Your task to perform on an android device: turn pop-ups on in chrome Image 0: 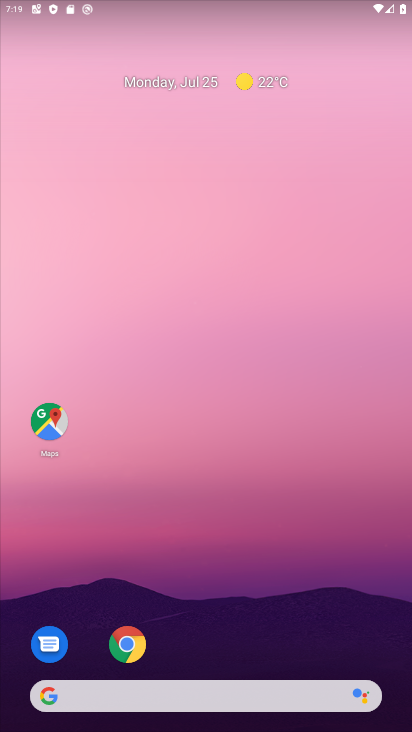
Step 0: click (124, 638)
Your task to perform on an android device: turn pop-ups on in chrome Image 1: 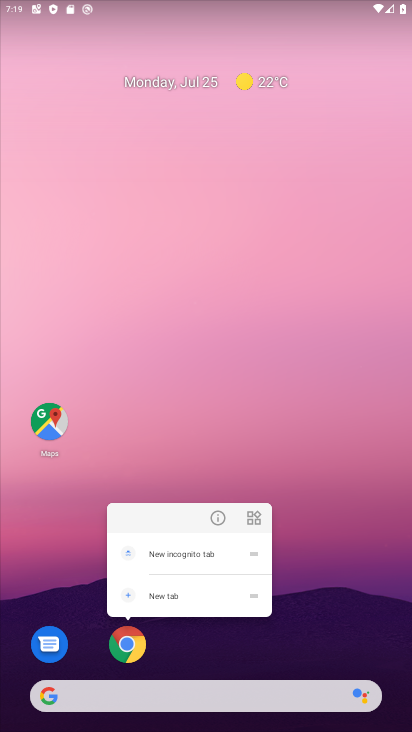
Step 1: click (124, 638)
Your task to perform on an android device: turn pop-ups on in chrome Image 2: 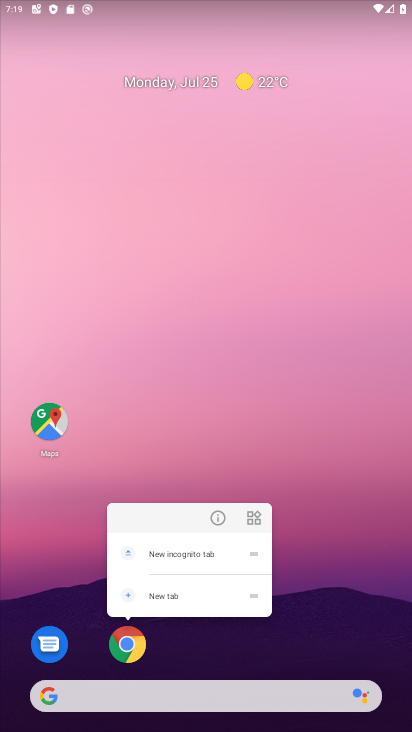
Step 2: click (125, 639)
Your task to perform on an android device: turn pop-ups on in chrome Image 3: 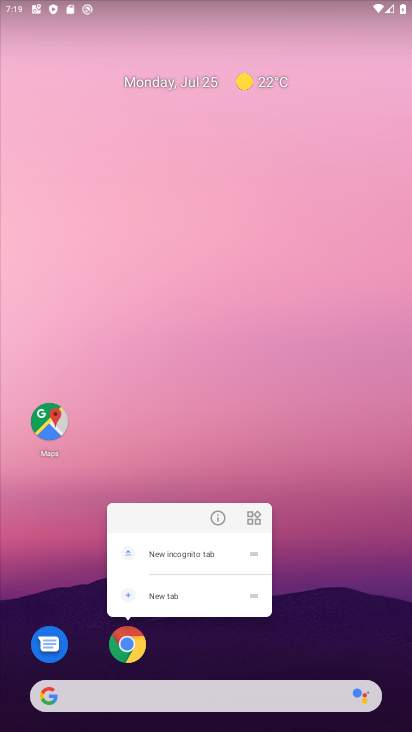
Step 3: click (124, 637)
Your task to perform on an android device: turn pop-ups on in chrome Image 4: 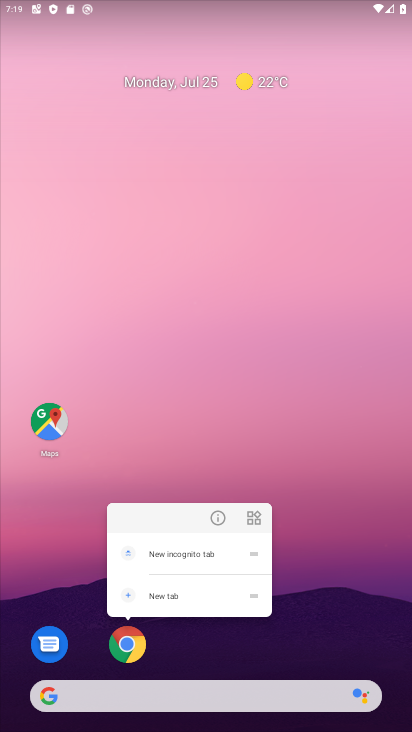
Step 4: click (262, 654)
Your task to perform on an android device: turn pop-ups on in chrome Image 5: 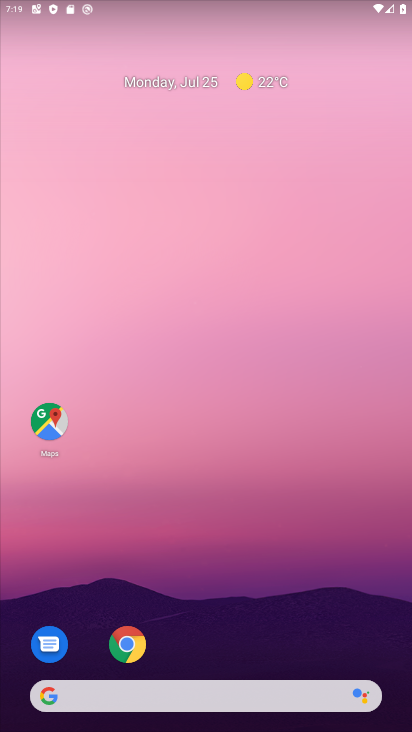
Step 5: drag from (298, 665) to (302, 123)
Your task to perform on an android device: turn pop-ups on in chrome Image 6: 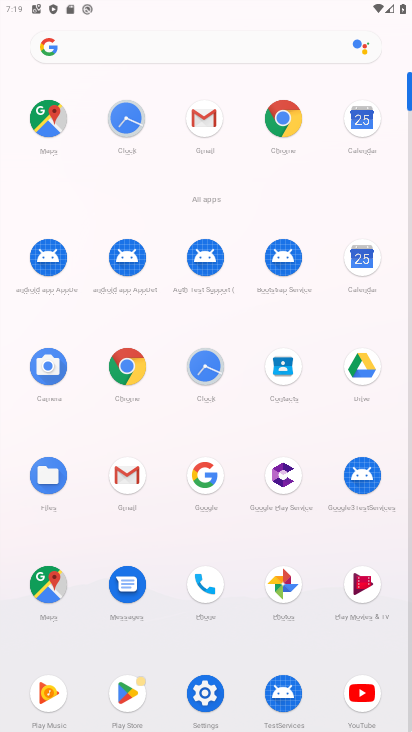
Step 6: click (281, 112)
Your task to perform on an android device: turn pop-ups on in chrome Image 7: 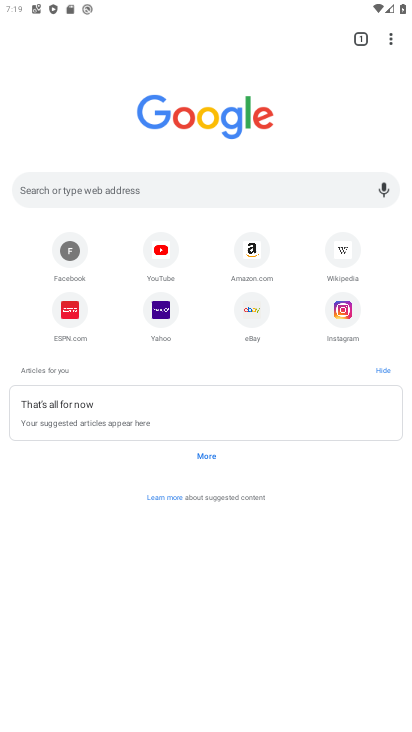
Step 7: click (387, 34)
Your task to perform on an android device: turn pop-ups on in chrome Image 8: 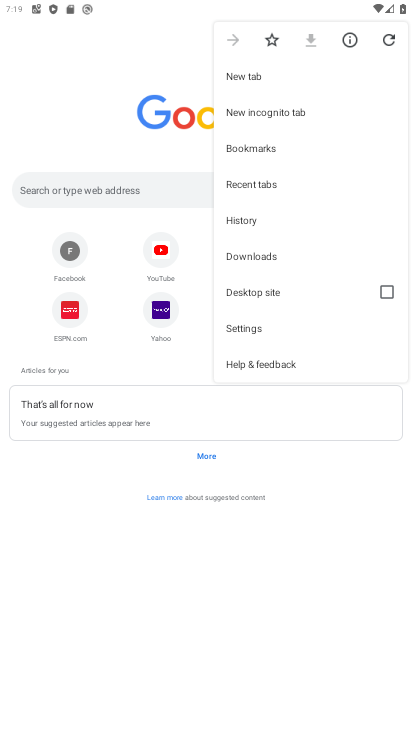
Step 8: click (262, 323)
Your task to perform on an android device: turn pop-ups on in chrome Image 9: 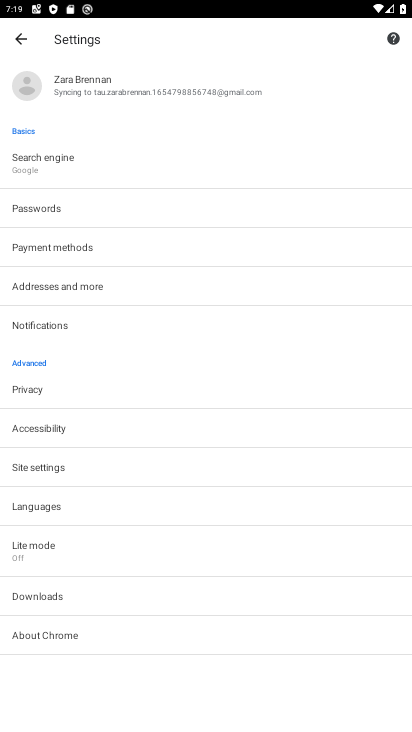
Step 9: click (75, 465)
Your task to perform on an android device: turn pop-ups on in chrome Image 10: 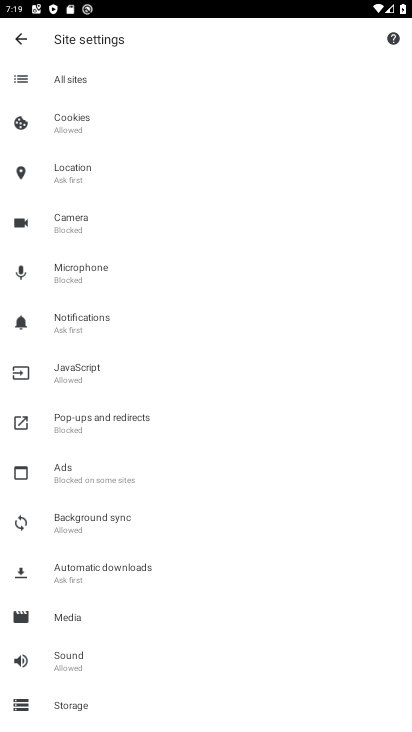
Step 10: click (175, 416)
Your task to perform on an android device: turn pop-ups on in chrome Image 11: 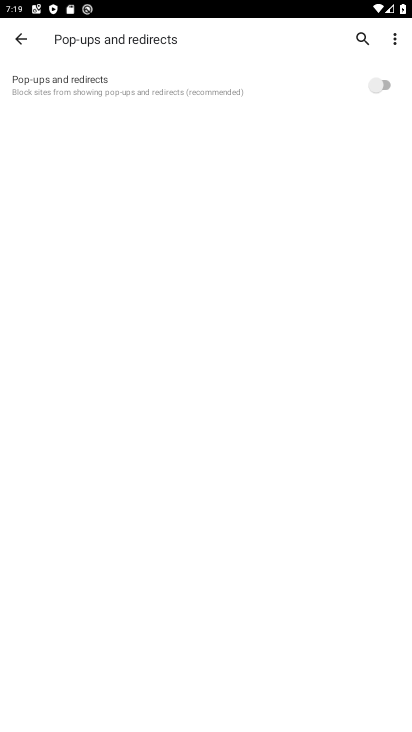
Step 11: click (386, 83)
Your task to perform on an android device: turn pop-ups on in chrome Image 12: 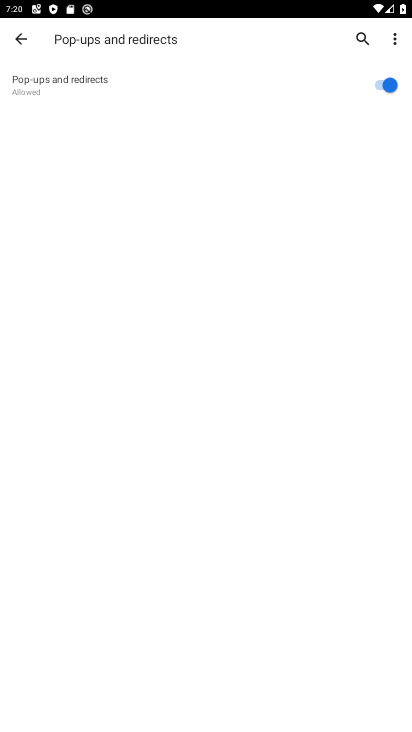
Step 12: task complete